Your task to perform on an android device: Go to accessibility settings Image 0: 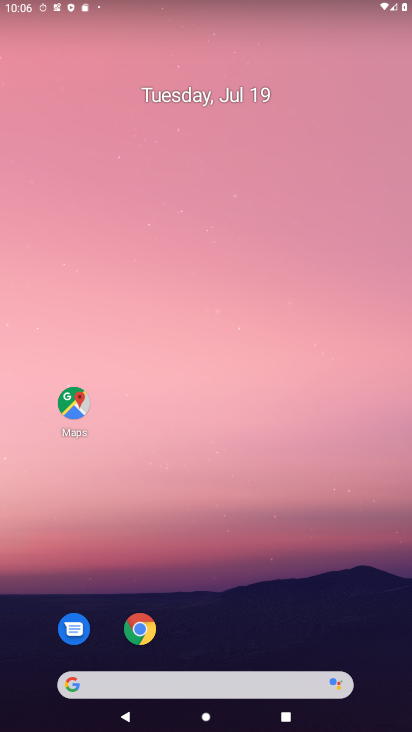
Step 0: drag from (180, 658) to (208, 51)
Your task to perform on an android device: Go to accessibility settings Image 1: 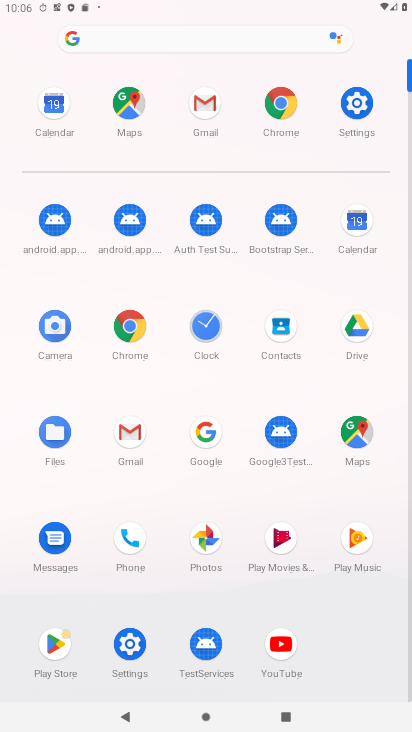
Step 1: click (120, 658)
Your task to perform on an android device: Go to accessibility settings Image 2: 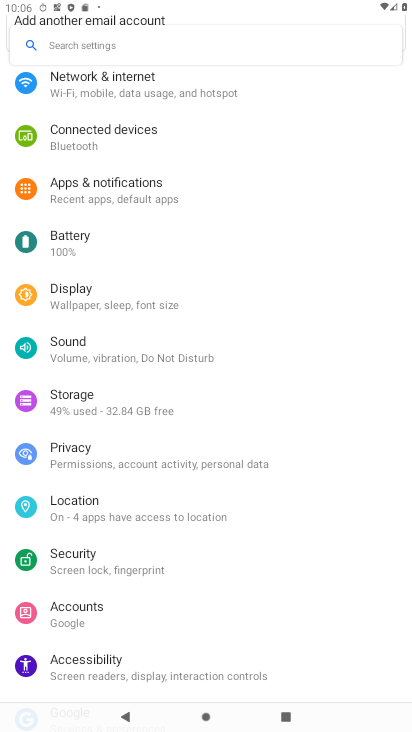
Step 2: click (94, 660)
Your task to perform on an android device: Go to accessibility settings Image 3: 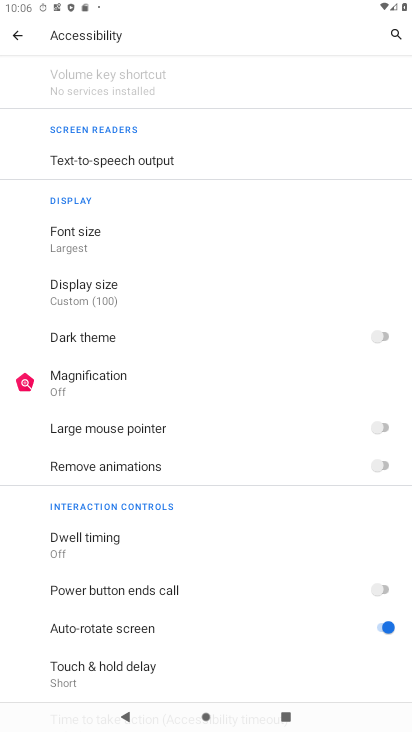
Step 3: task complete